Your task to perform on an android device: toggle show notifications on the lock screen Image 0: 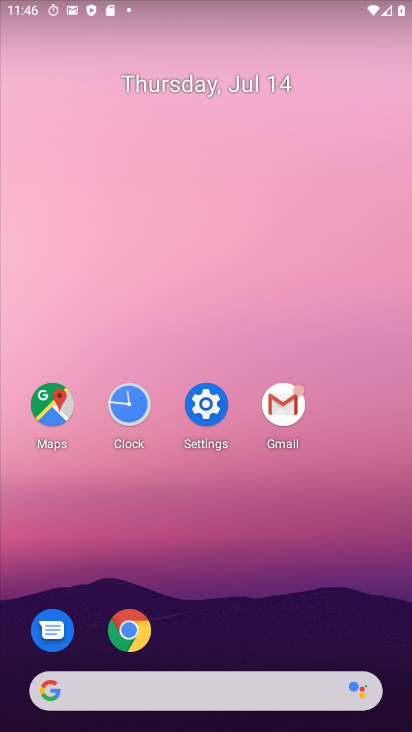
Step 0: click (209, 389)
Your task to perform on an android device: toggle show notifications on the lock screen Image 1: 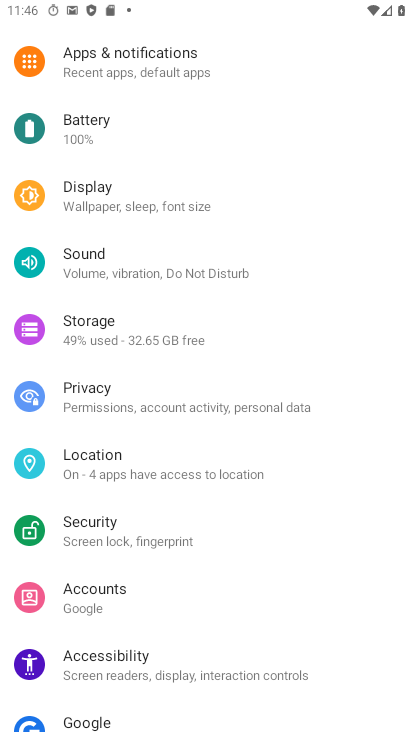
Step 1: click (117, 61)
Your task to perform on an android device: toggle show notifications on the lock screen Image 2: 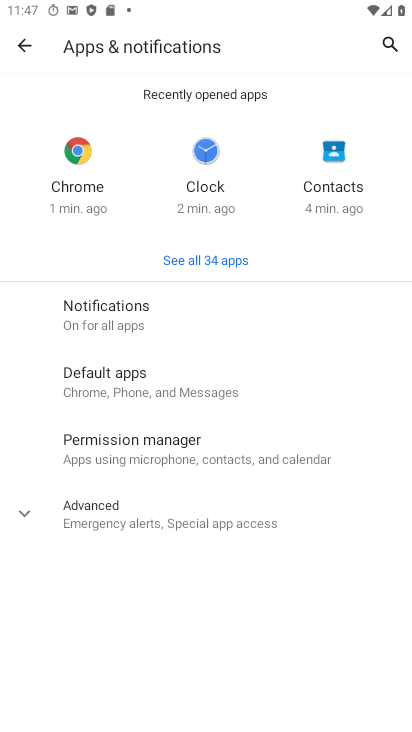
Step 2: click (132, 311)
Your task to perform on an android device: toggle show notifications on the lock screen Image 3: 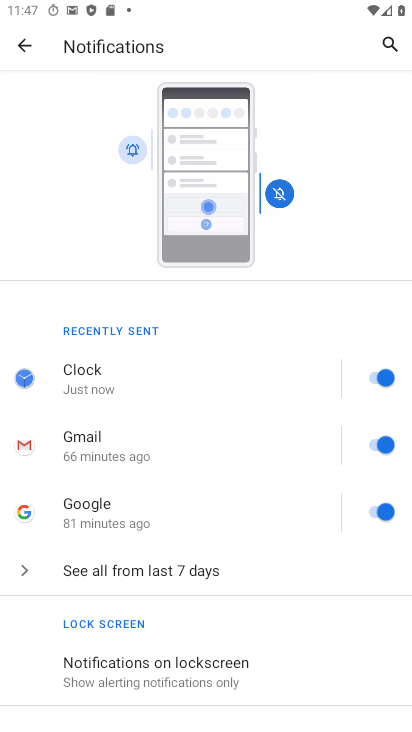
Step 3: click (159, 652)
Your task to perform on an android device: toggle show notifications on the lock screen Image 4: 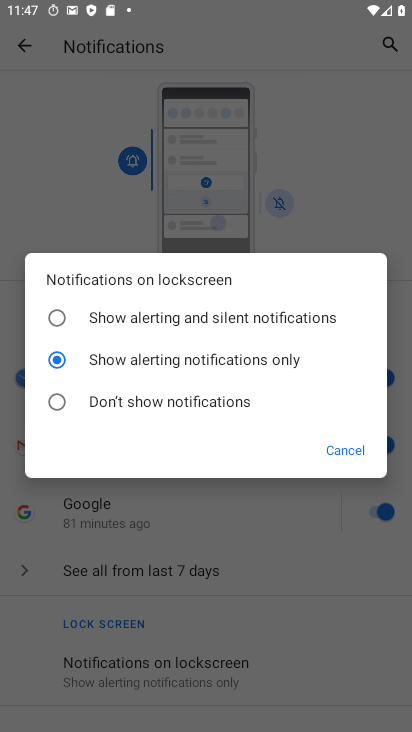
Step 4: click (59, 317)
Your task to perform on an android device: toggle show notifications on the lock screen Image 5: 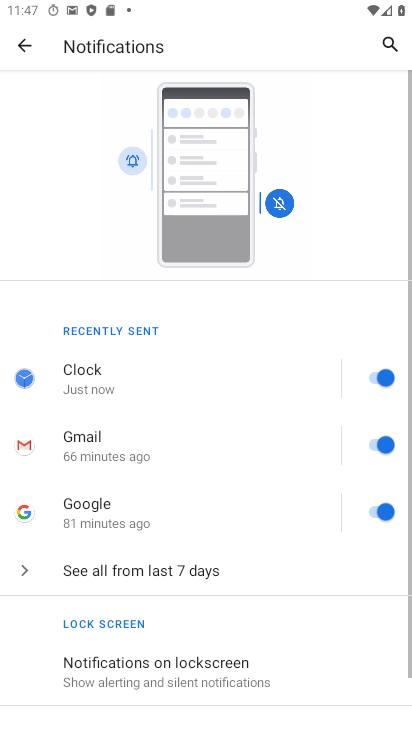
Step 5: task complete